Your task to perform on an android device: find which apps use the phone's location Image 0: 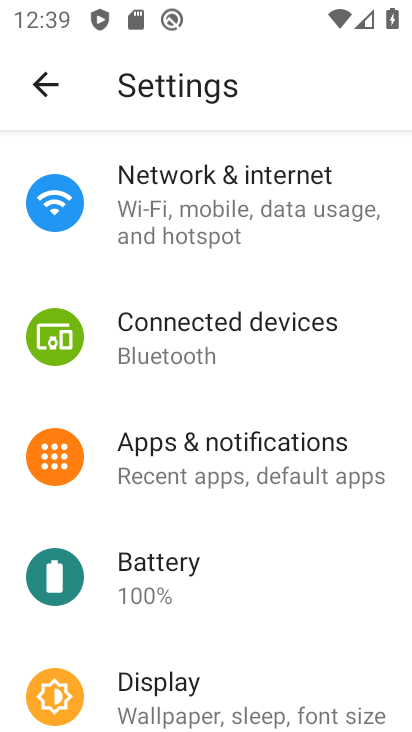
Step 0: press home button
Your task to perform on an android device: find which apps use the phone's location Image 1: 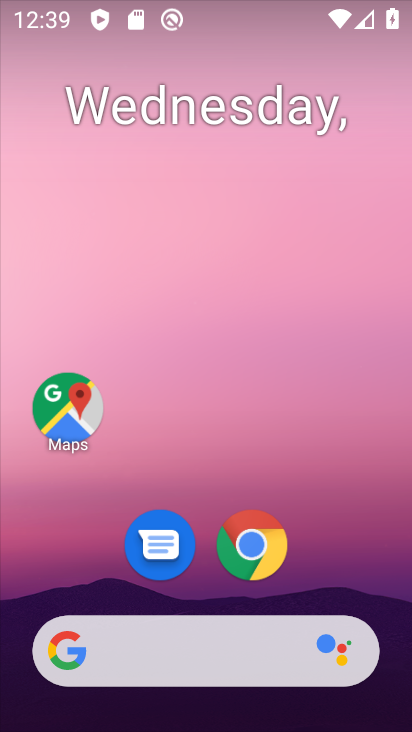
Step 1: drag from (315, 530) to (335, 86)
Your task to perform on an android device: find which apps use the phone's location Image 2: 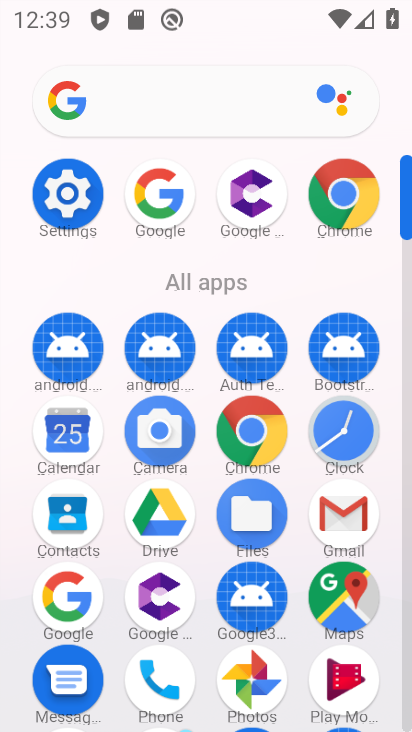
Step 2: click (77, 195)
Your task to perform on an android device: find which apps use the phone's location Image 3: 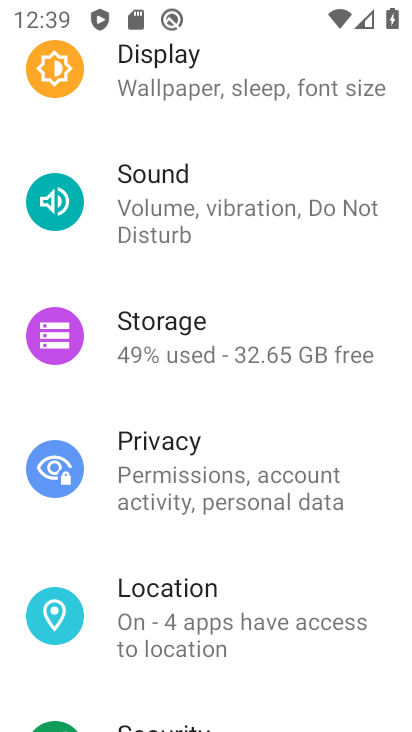
Step 3: drag from (182, 511) to (290, 123)
Your task to perform on an android device: find which apps use the phone's location Image 4: 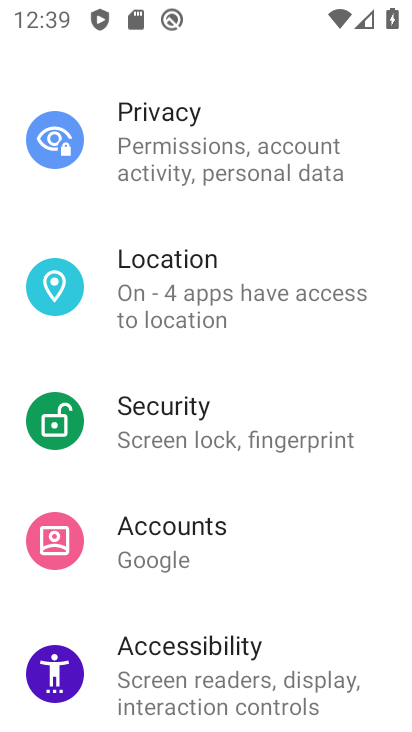
Step 4: drag from (245, 537) to (257, 379)
Your task to perform on an android device: find which apps use the phone's location Image 5: 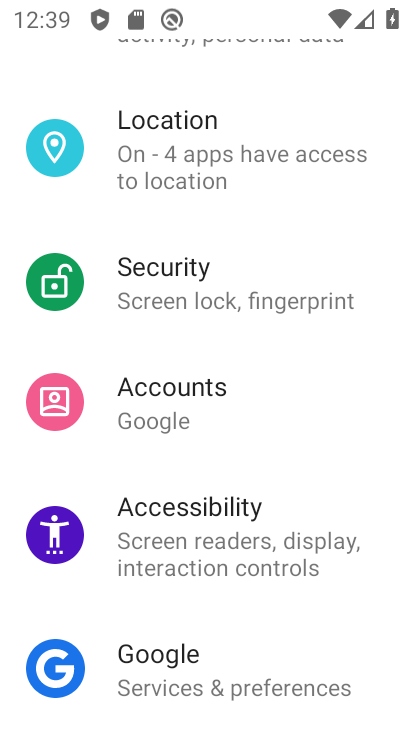
Step 5: click (210, 182)
Your task to perform on an android device: find which apps use the phone's location Image 6: 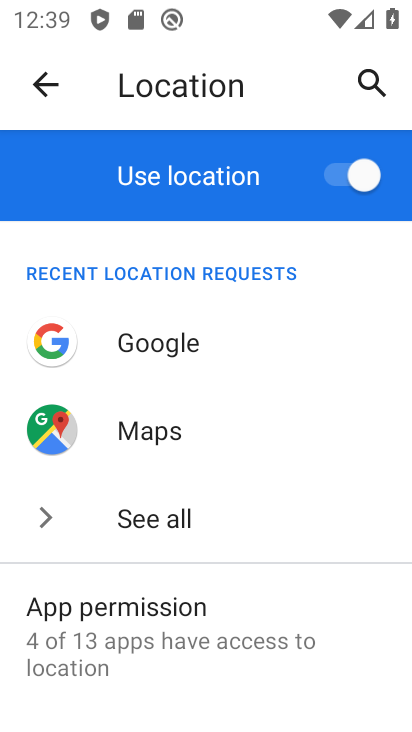
Step 6: drag from (273, 482) to (348, 149)
Your task to perform on an android device: find which apps use the phone's location Image 7: 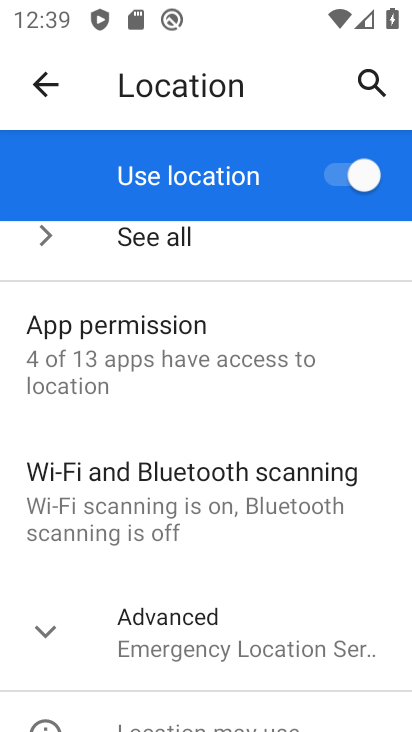
Step 7: drag from (250, 522) to (336, 57)
Your task to perform on an android device: find which apps use the phone's location Image 8: 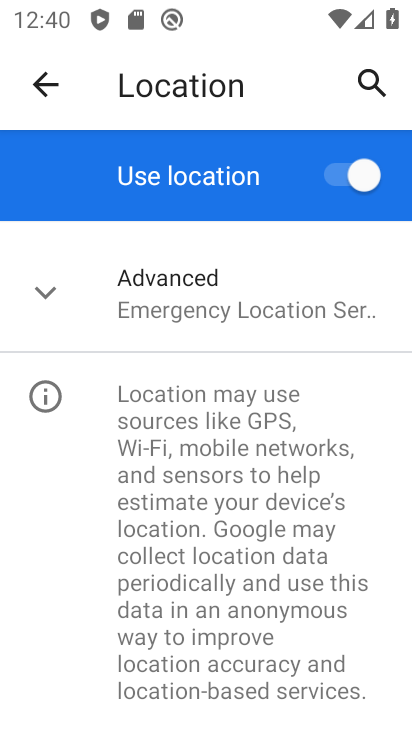
Step 8: click (213, 320)
Your task to perform on an android device: find which apps use the phone's location Image 9: 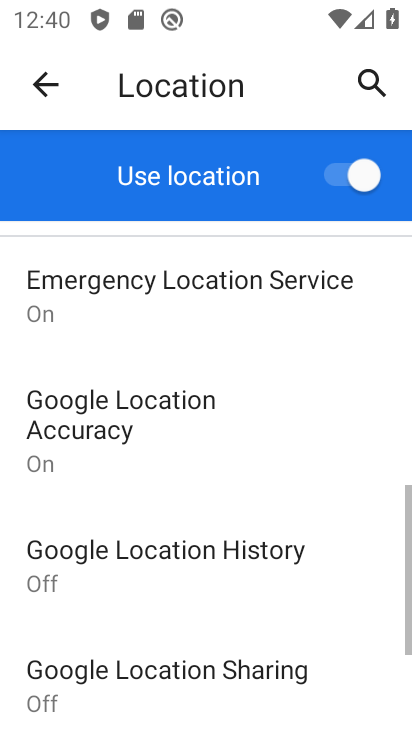
Step 9: drag from (286, 564) to (308, 277)
Your task to perform on an android device: find which apps use the phone's location Image 10: 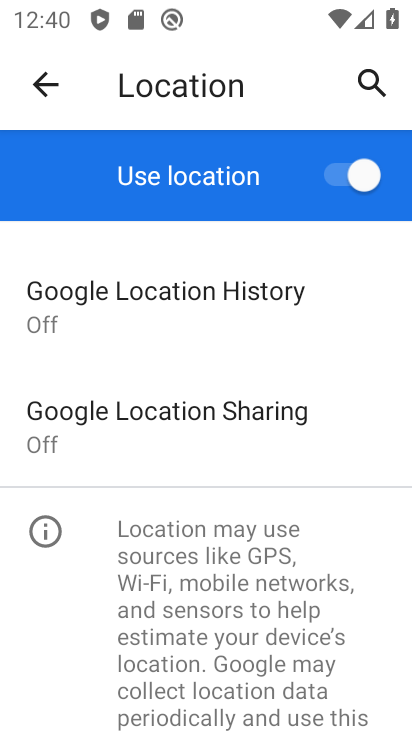
Step 10: drag from (302, 293) to (292, 574)
Your task to perform on an android device: find which apps use the phone's location Image 11: 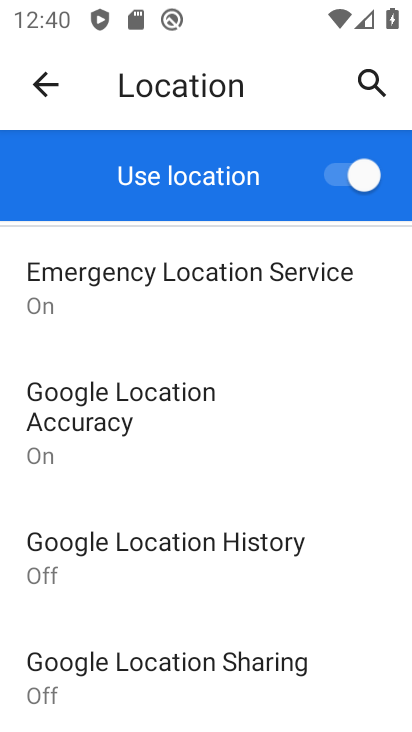
Step 11: drag from (281, 472) to (306, 728)
Your task to perform on an android device: find which apps use the phone's location Image 12: 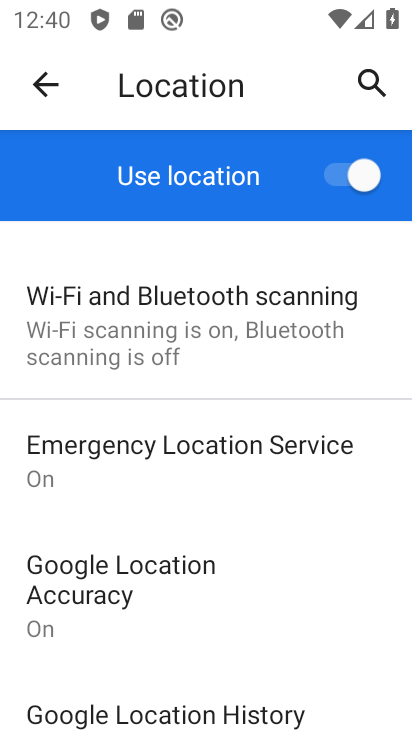
Step 12: drag from (282, 421) to (273, 704)
Your task to perform on an android device: find which apps use the phone's location Image 13: 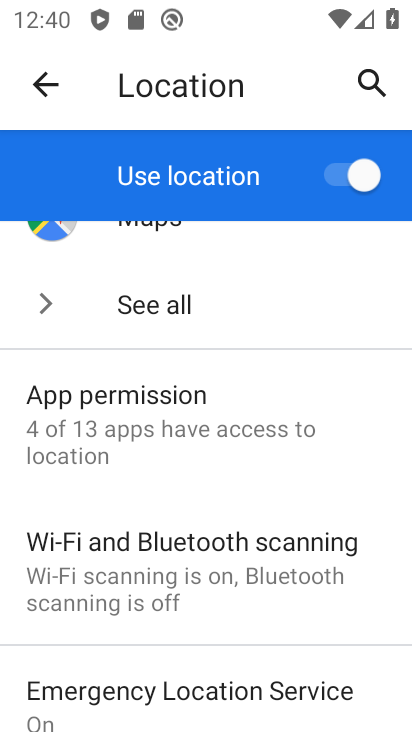
Step 13: drag from (99, 282) to (167, 679)
Your task to perform on an android device: find which apps use the phone's location Image 14: 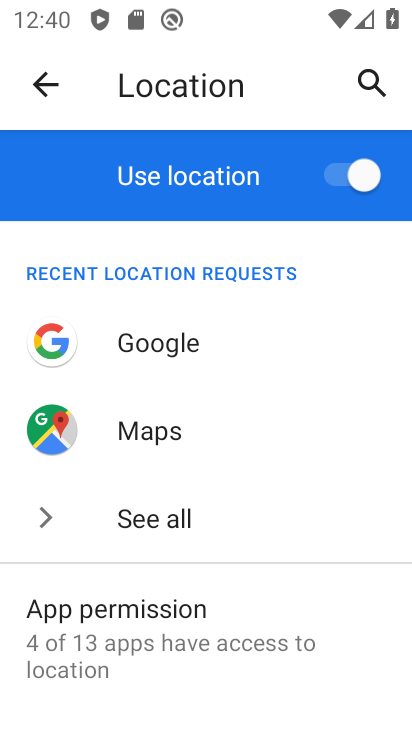
Step 14: click (107, 621)
Your task to perform on an android device: find which apps use the phone's location Image 15: 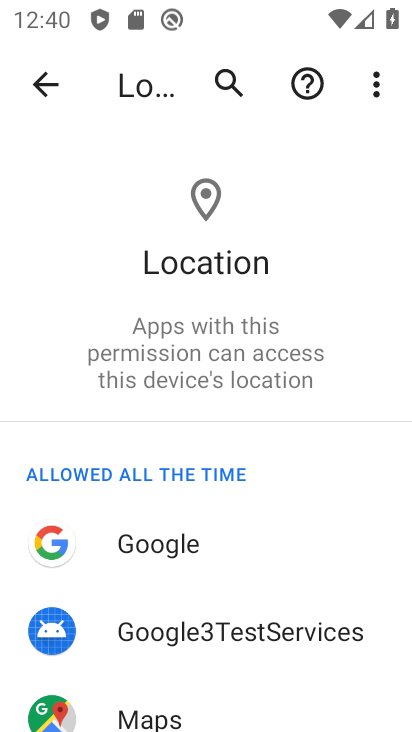
Step 15: task complete